Your task to perform on an android device: turn off airplane mode Image 0: 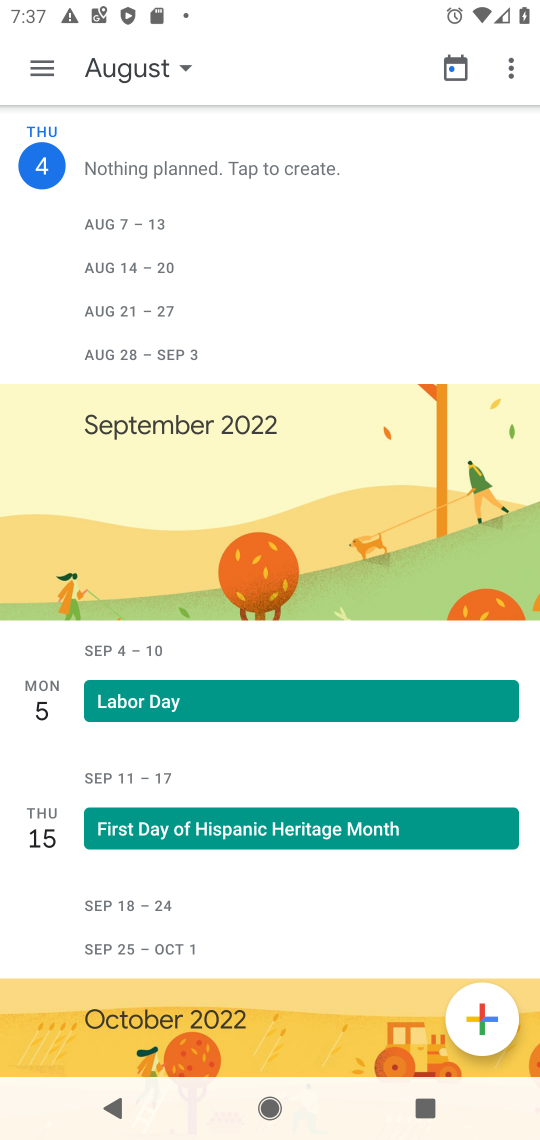
Step 0: press home button
Your task to perform on an android device: turn off airplane mode Image 1: 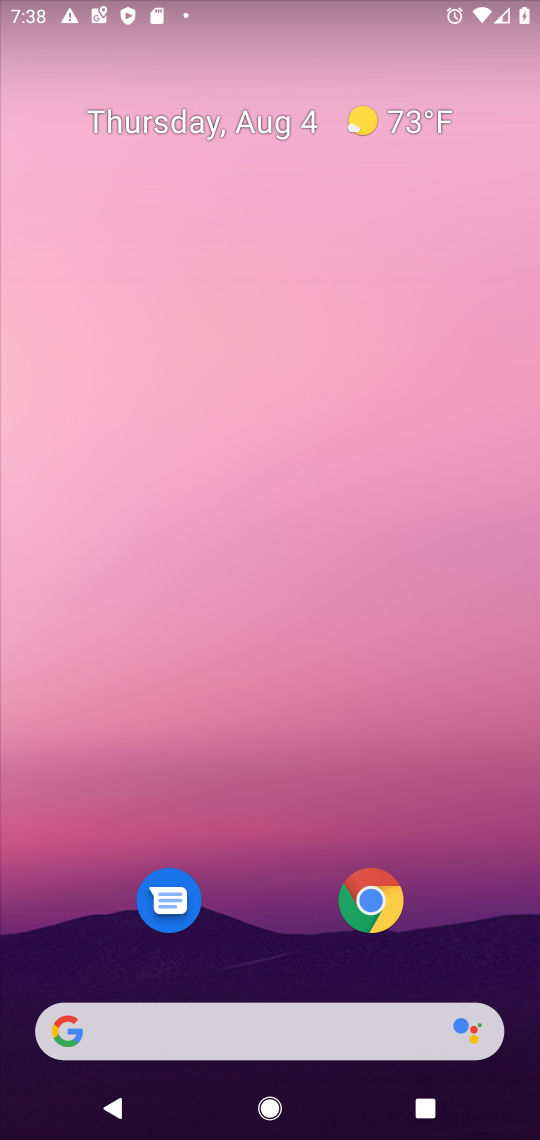
Step 1: drag from (269, 1033) to (332, 38)
Your task to perform on an android device: turn off airplane mode Image 2: 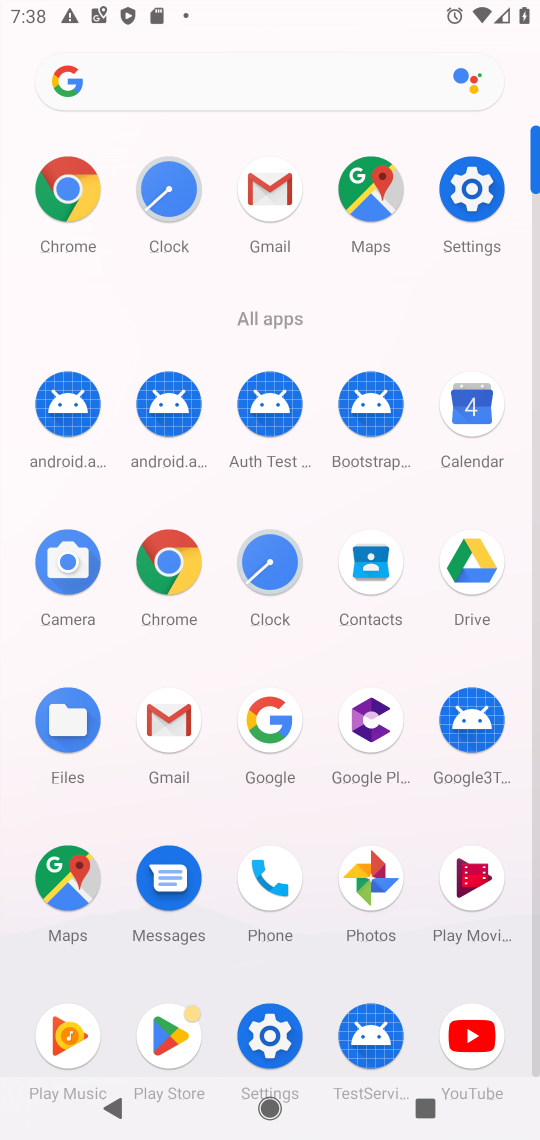
Step 2: click (476, 191)
Your task to perform on an android device: turn off airplane mode Image 3: 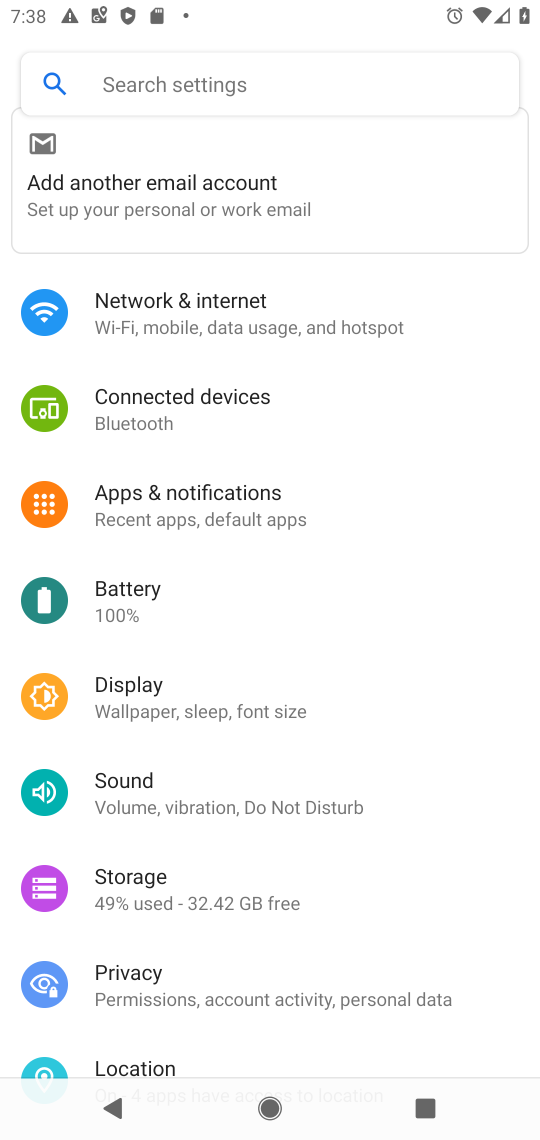
Step 3: click (248, 326)
Your task to perform on an android device: turn off airplane mode Image 4: 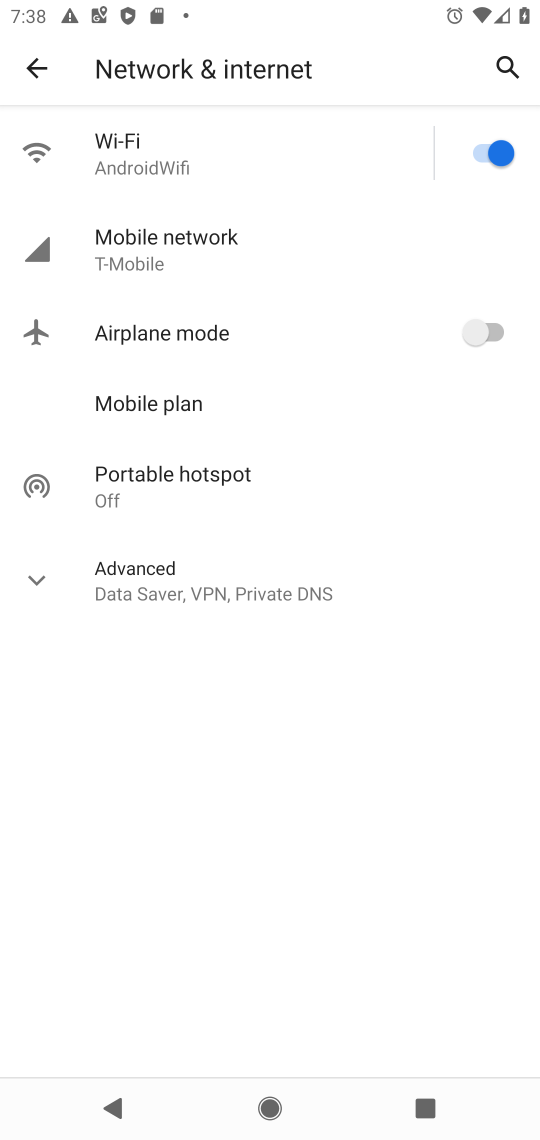
Step 4: task complete